Your task to perform on an android device: Open Google Image 0: 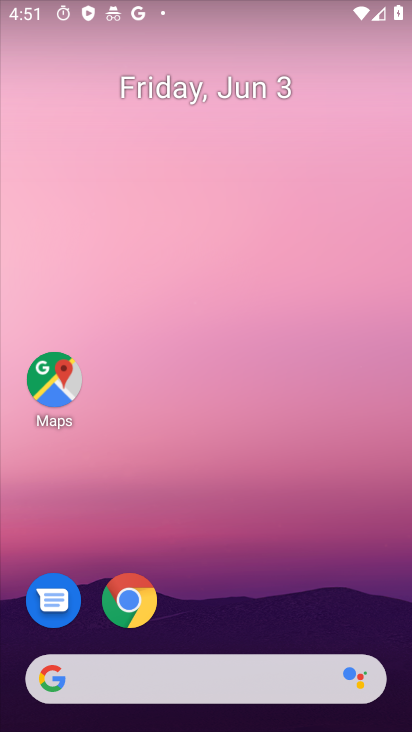
Step 0: drag from (394, 596) to (296, 63)
Your task to perform on an android device: Open Google Image 1: 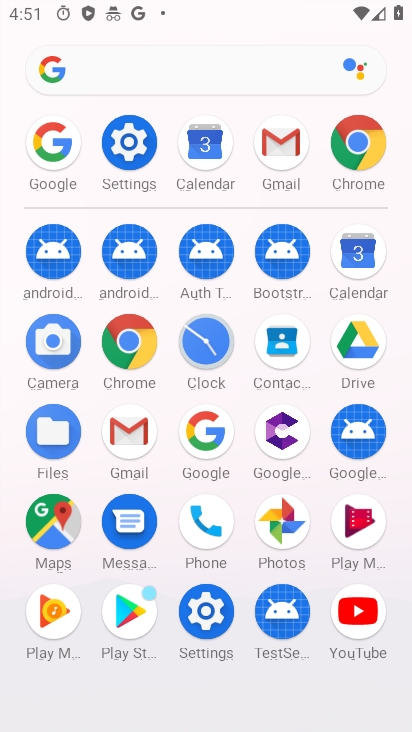
Step 1: click (204, 415)
Your task to perform on an android device: Open Google Image 2: 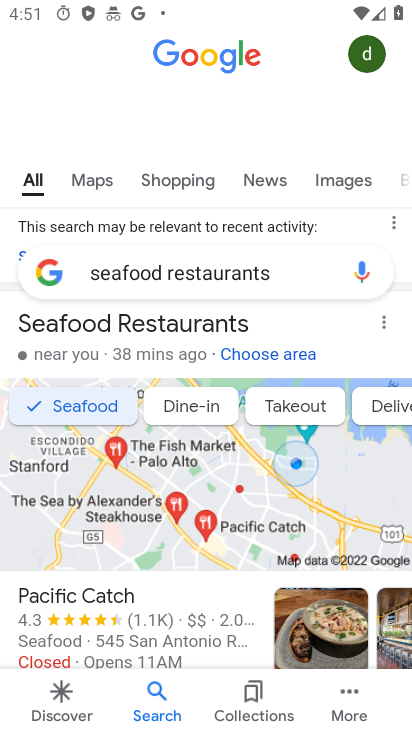
Step 2: task complete